Your task to perform on an android device: Open notification settings Image 0: 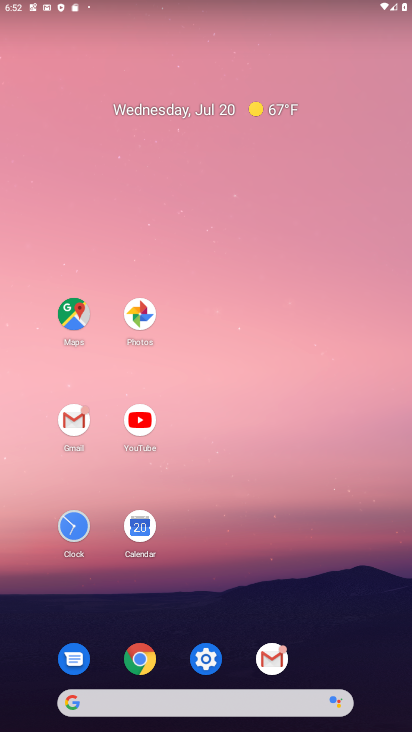
Step 0: click (209, 668)
Your task to perform on an android device: Open notification settings Image 1: 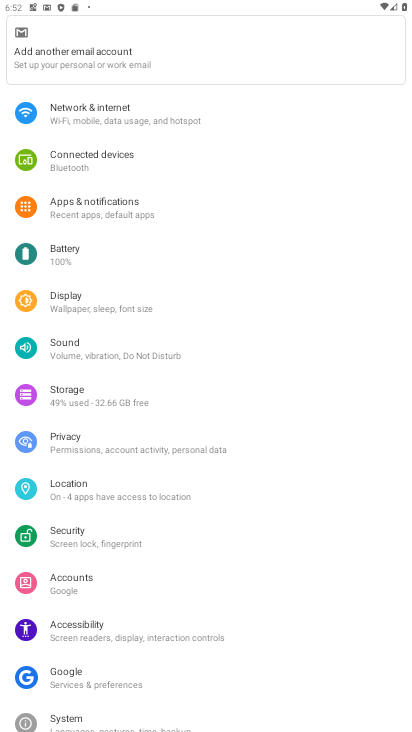
Step 1: click (131, 200)
Your task to perform on an android device: Open notification settings Image 2: 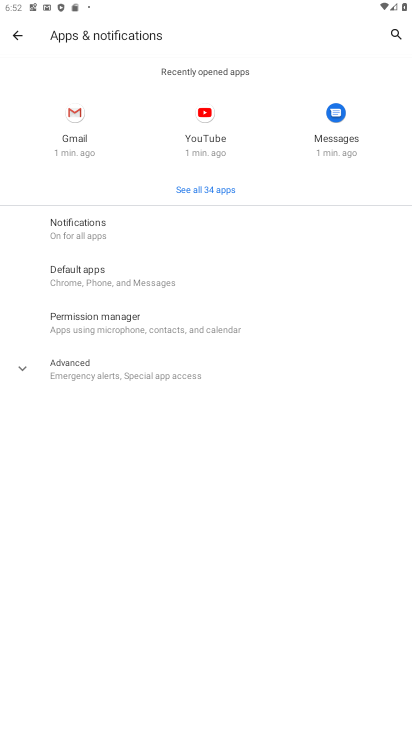
Step 2: task complete